Your task to perform on an android device: Search for "razer deathadder" on amazon.com, select the first entry, and add it to the cart. Image 0: 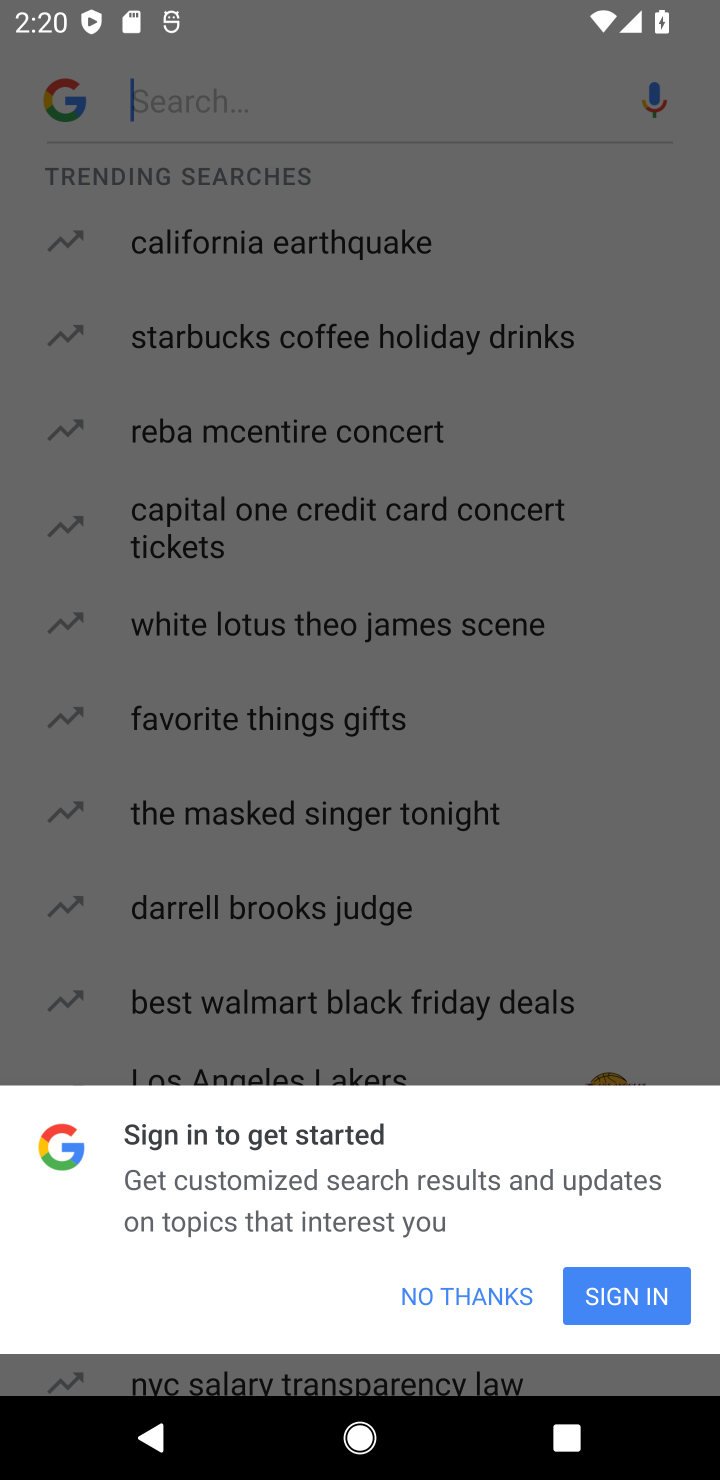
Step 0: click (490, 1294)
Your task to perform on an android device: Search for "razer deathadder" on amazon.com, select the first entry, and add it to the cart. Image 1: 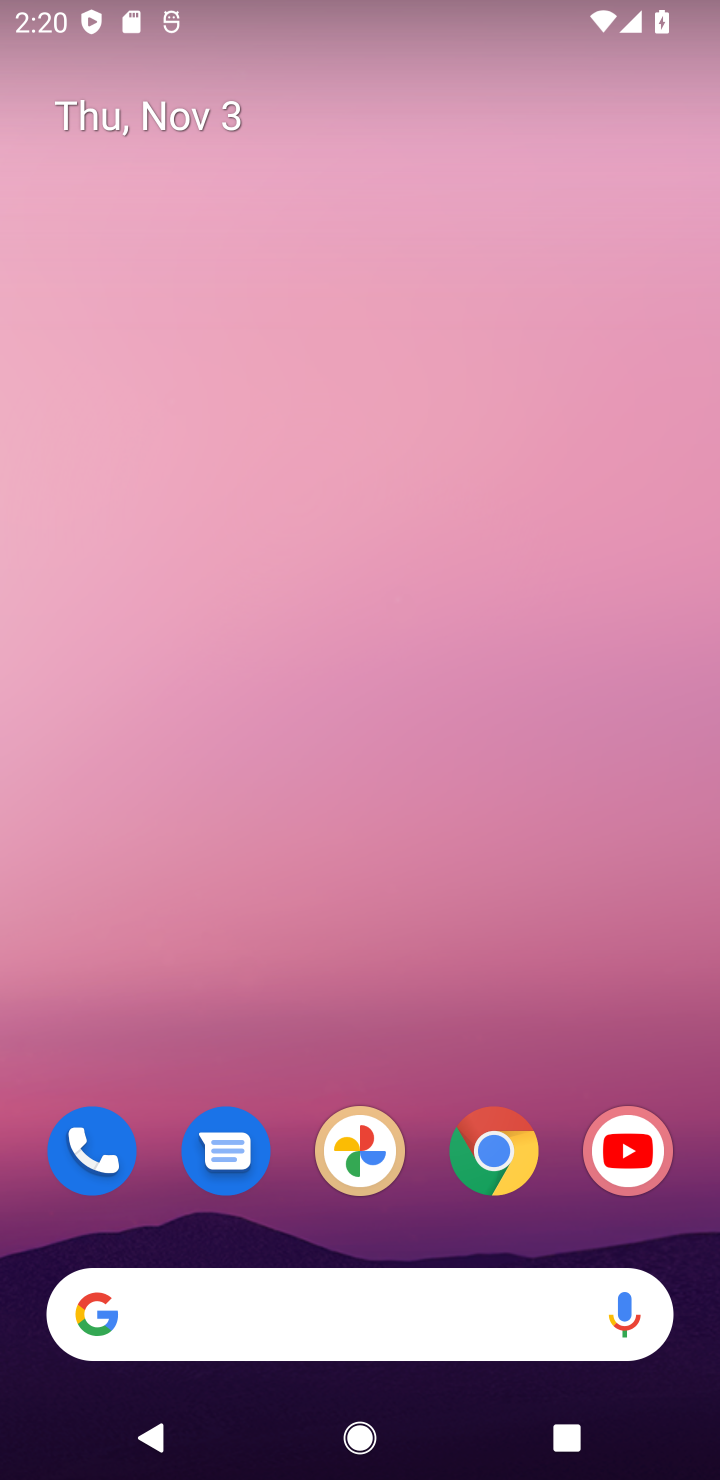
Step 1: task complete